Your task to perform on an android device: Open Chrome and go to settings Image 0: 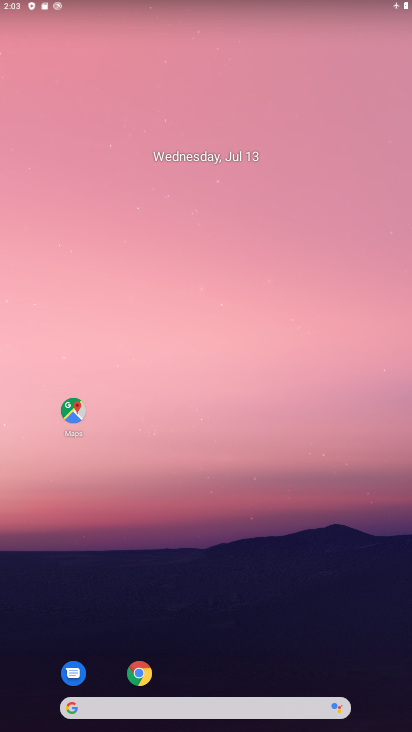
Step 0: click (139, 674)
Your task to perform on an android device: Open Chrome and go to settings Image 1: 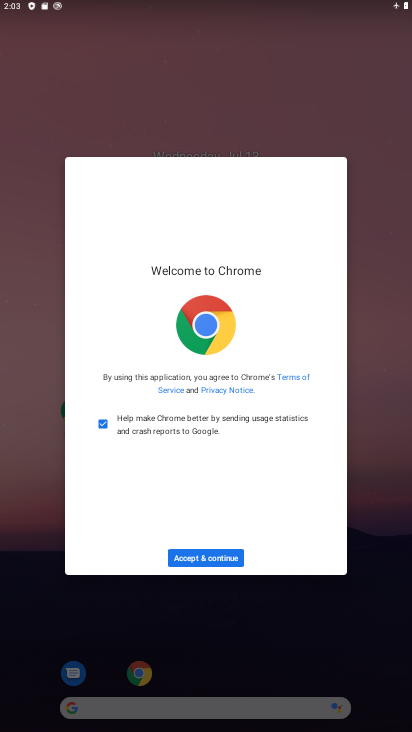
Step 1: click (192, 559)
Your task to perform on an android device: Open Chrome and go to settings Image 2: 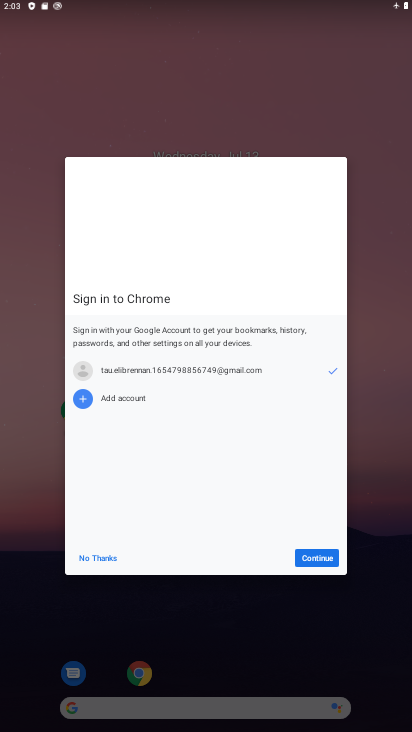
Step 2: click (312, 561)
Your task to perform on an android device: Open Chrome and go to settings Image 3: 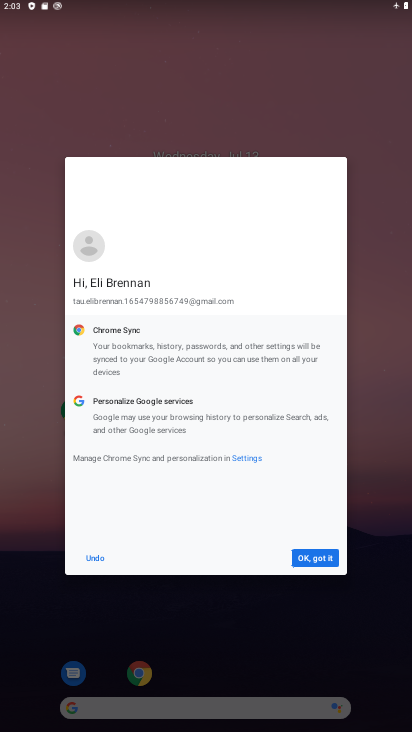
Step 3: click (312, 561)
Your task to perform on an android device: Open Chrome and go to settings Image 4: 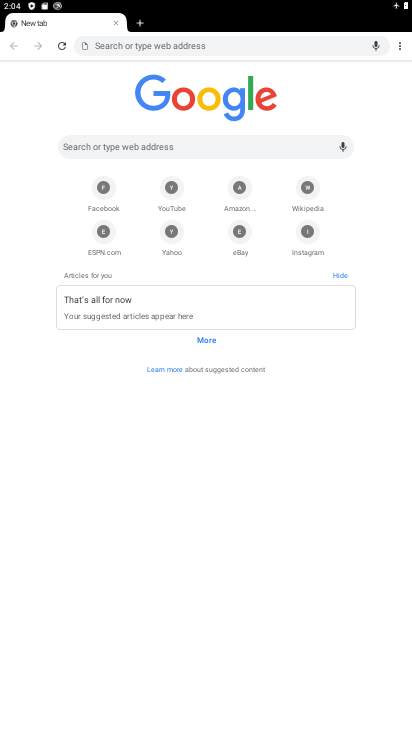
Step 4: click (401, 44)
Your task to perform on an android device: Open Chrome and go to settings Image 5: 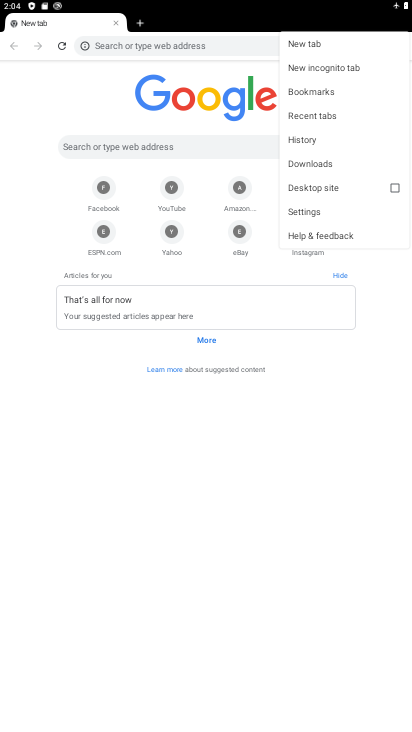
Step 5: click (312, 209)
Your task to perform on an android device: Open Chrome and go to settings Image 6: 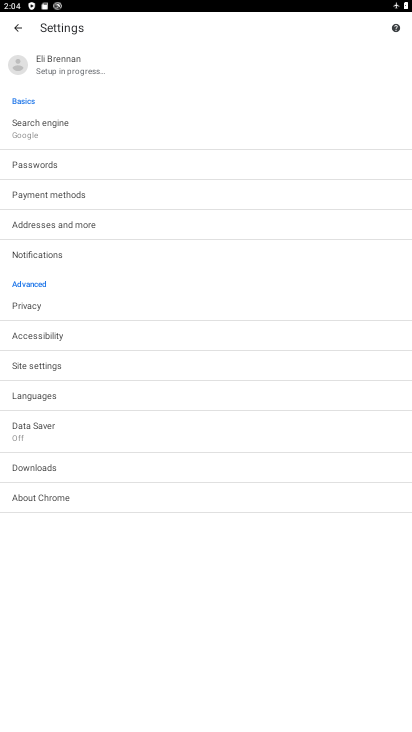
Step 6: task complete